Your task to perform on an android device: turn notification dots on Image 0: 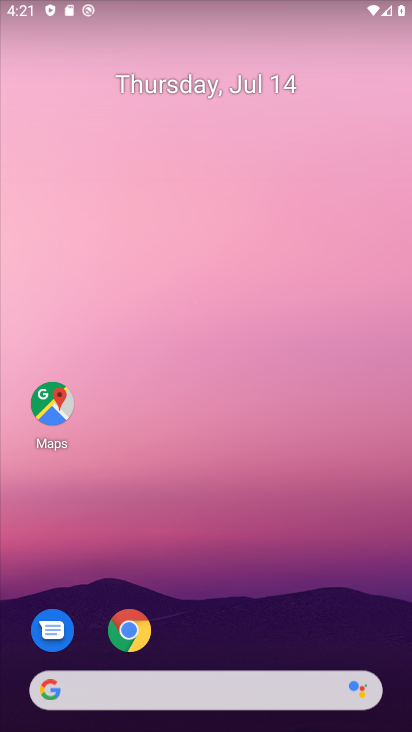
Step 0: drag from (248, 246) to (208, 238)
Your task to perform on an android device: turn notification dots on Image 1: 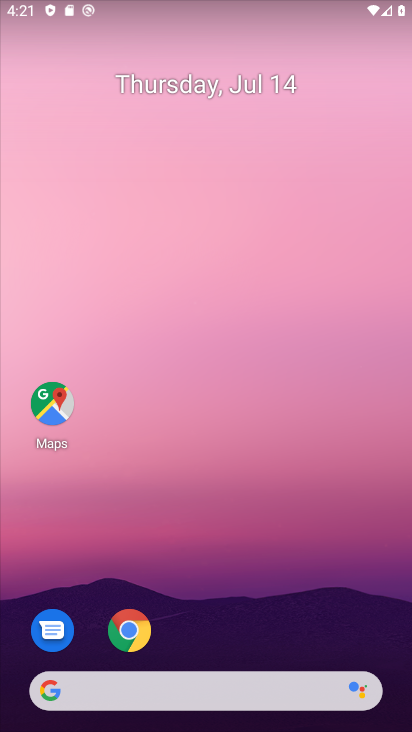
Step 1: drag from (283, 611) to (276, 298)
Your task to perform on an android device: turn notification dots on Image 2: 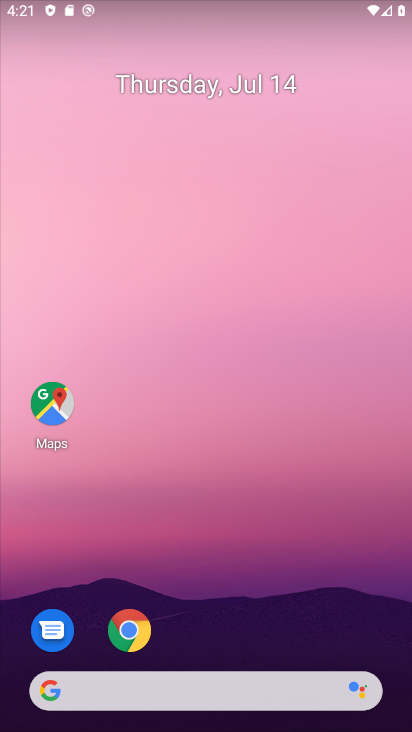
Step 2: drag from (247, 534) to (233, 51)
Your task to perform on an android device: turn notification dots on Image 3: 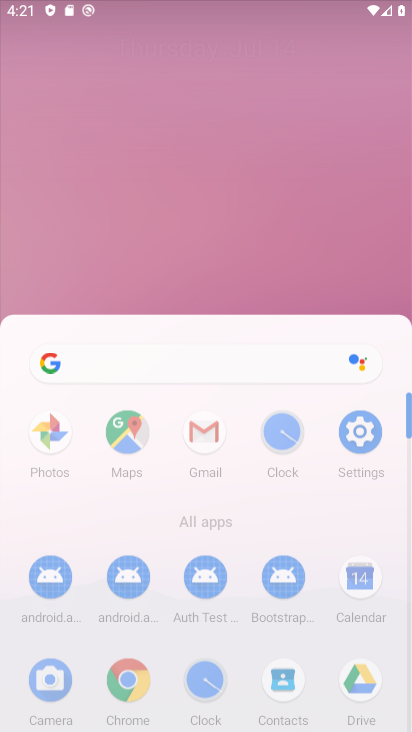
Step 3: drag from (281, 636) to (175, 105)
Your task to perform on an android device: turn notification dots on Image 4: 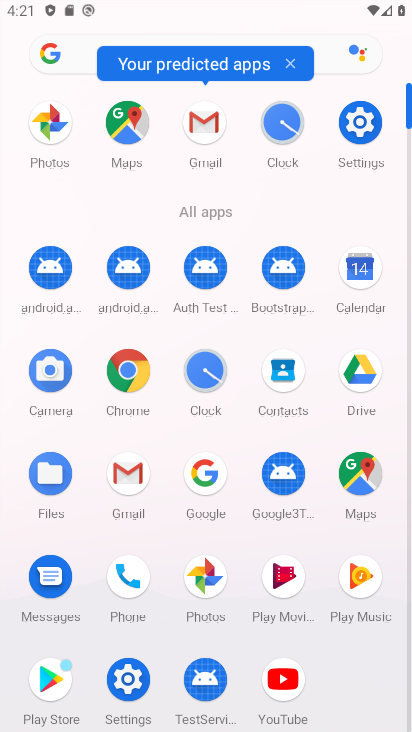
Step 4: click (343, 127)
Your task to perform on an android device: turn notification dots on Image 5: 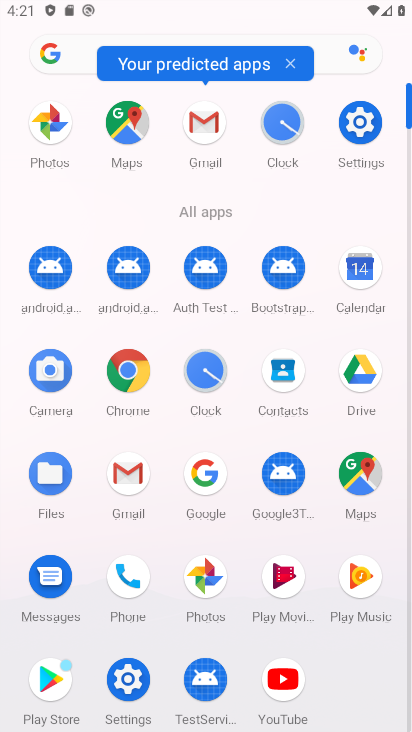
Step 5: click (381, 140)
Your task to perform on an android device: turn notification dots on Image 6: 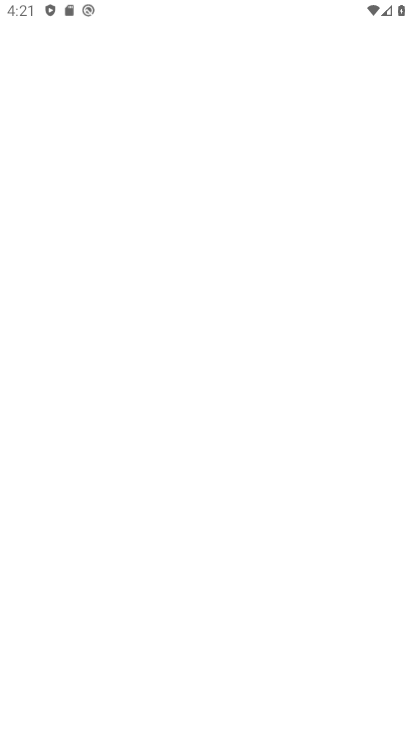
Step 6: click (365, 132)
Your task to perform on an android device: turn notification dots on Image 7: 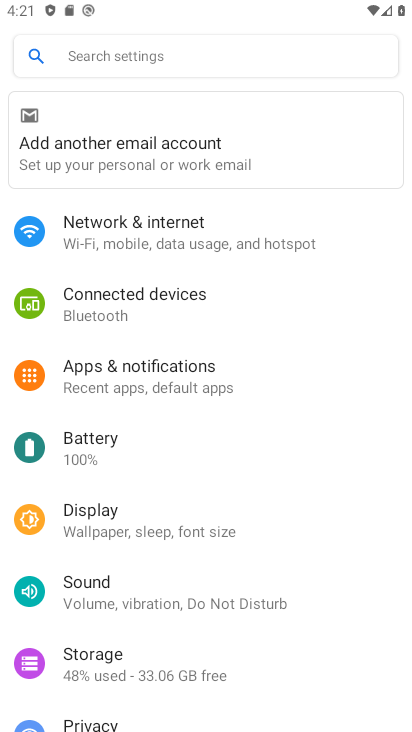
Step 7: click (139, 380)
Your task to perform on an android device: turn notification dots on Image 8: 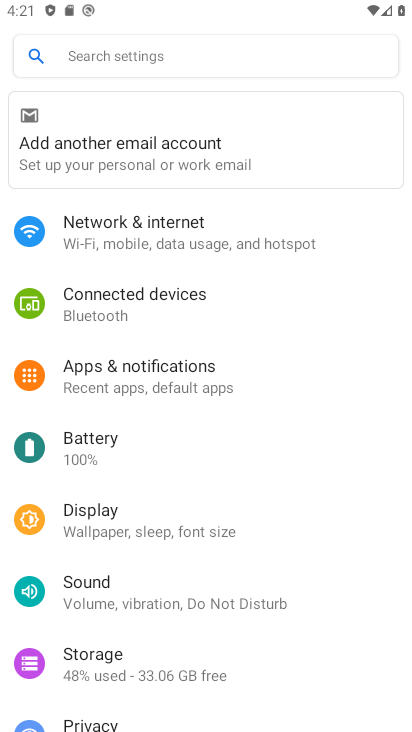
Step 8: click (140, 382)
Your task to perform on an android device: turn notification dots on Image 9: 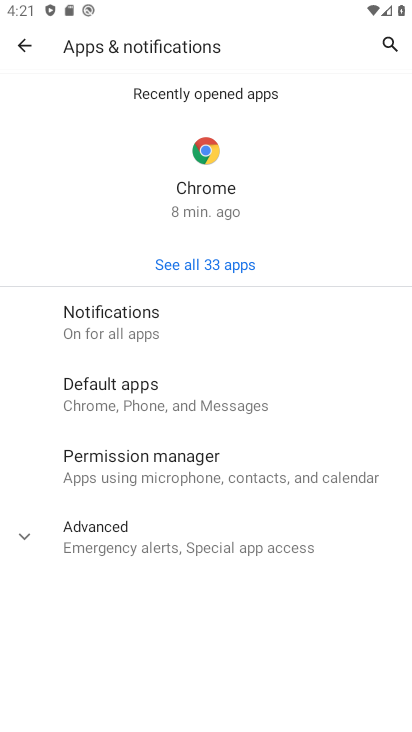
Step 9: click (110, 314)
Your task to perform on an android device: turn notification dots on Image 10: 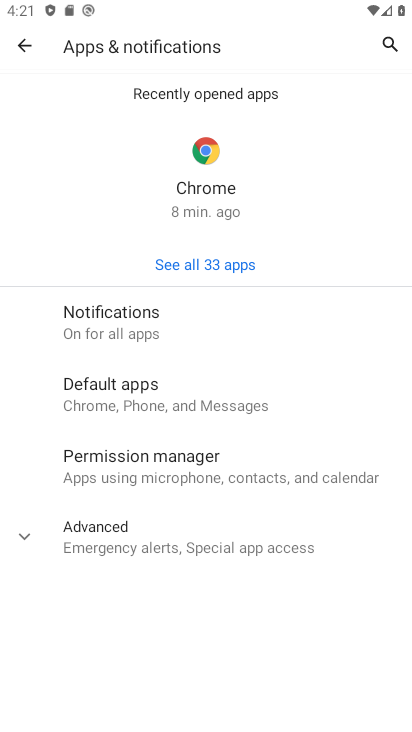
Step 10: click (110, 316)
Your task to perform on an android device: turn notification dots on Image 11: 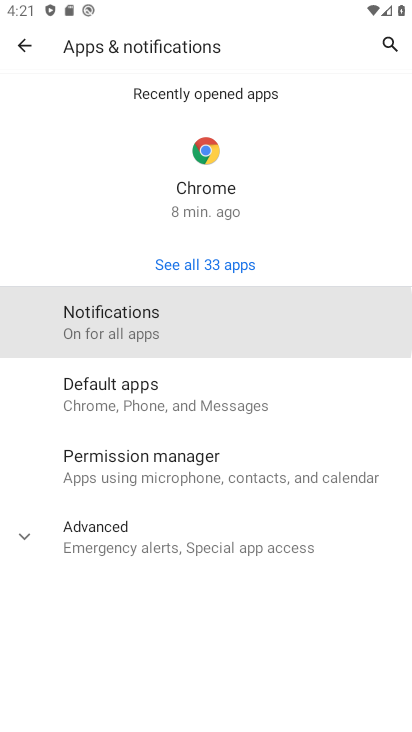
Step 11: click (110, 316)
Your task to perform on an android device: turn notification dots on Image 12: 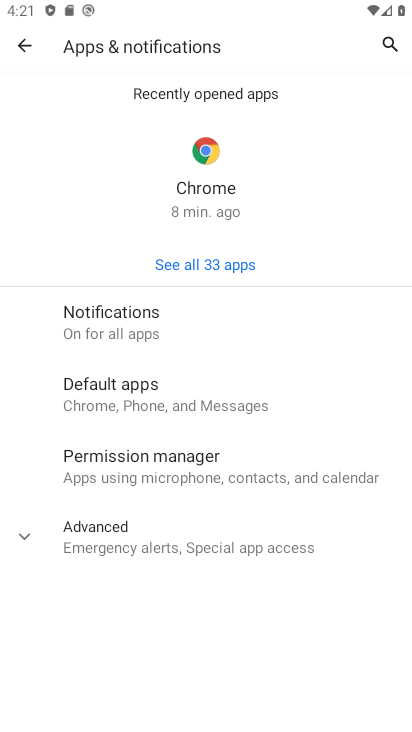
Step 12: click (111, 317)
Your task to perform on an android device: turn notification dots on Image 13: 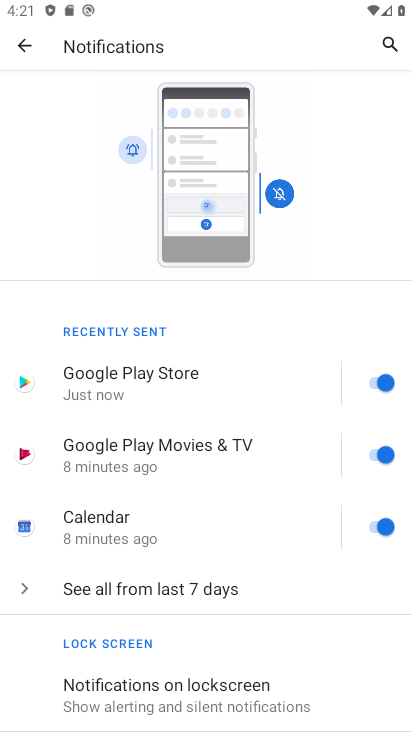
Step 13: drag from (150, 537) to (157, 261)
Your task to perform on an android device: turn notification dots on Image 14: 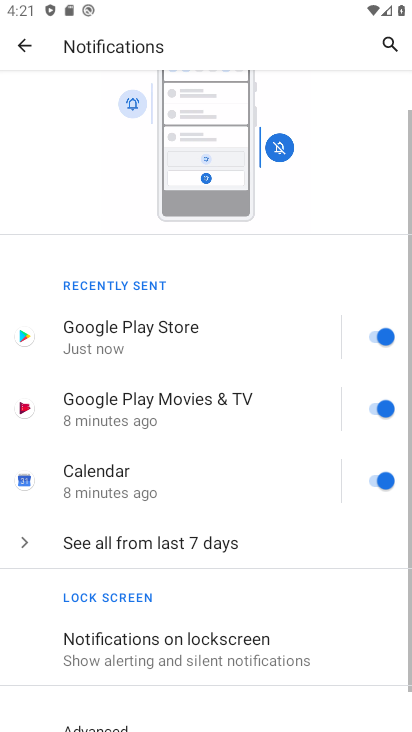
Step 14: drag from (165, 458) to (174, 92)
Your task to perform on an android device: turn notification dots on Image 15: 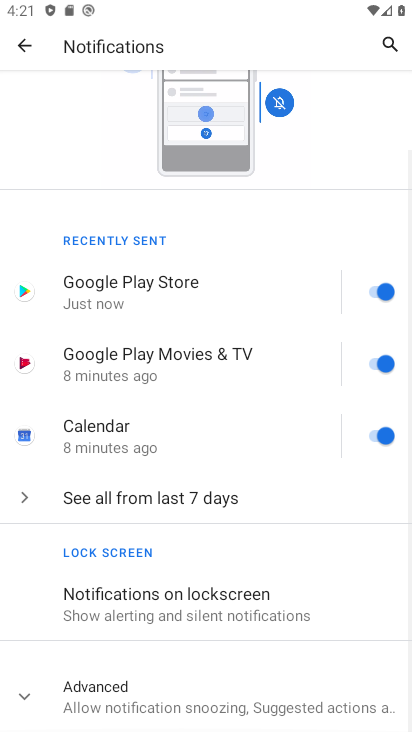
Step 15: drag from (173, 195) to (156, 254)
Your task to perform on an android device: turn notification dots on Image 16: 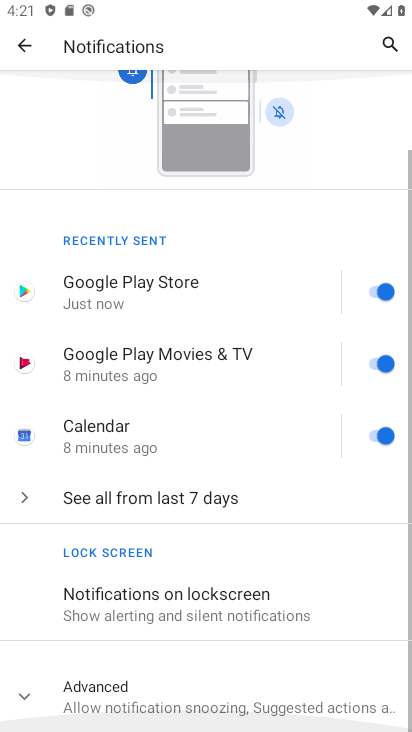
Step 16: drag from (142, 572) to (173, 356)
Your task to perform on an android device: turn notification dots on Image 17: 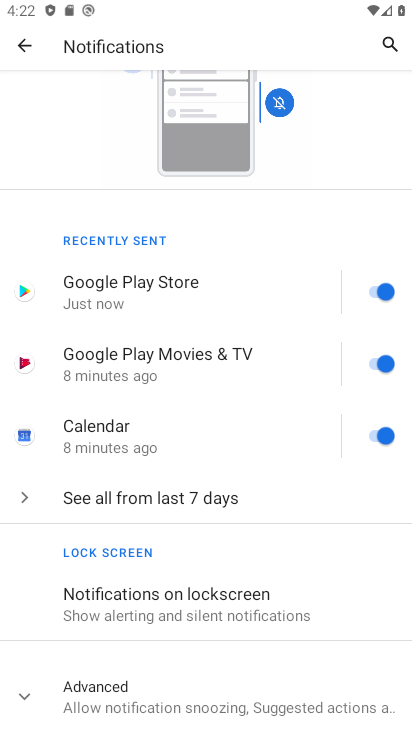
Step 17: click (106, 686)
Your task to perform on an android device: turn notification dots on Image 18: 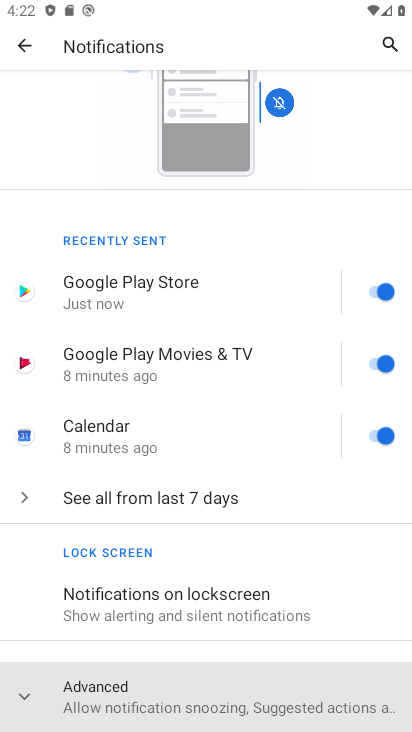
Step 18: click (106, 687)
Your task to perform on an android device: turn notification dots on Image 19: 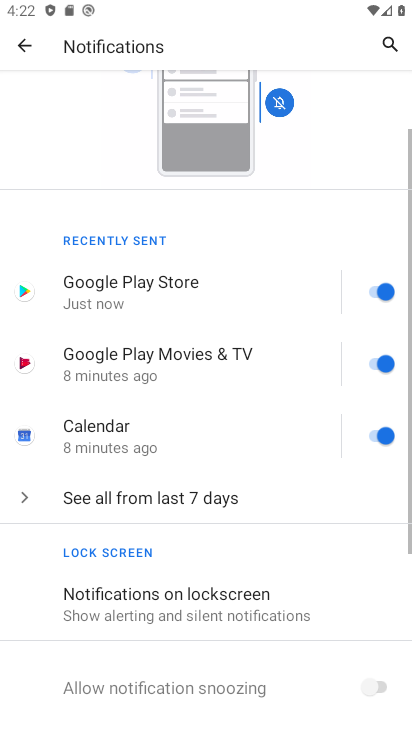
Step 19: click (118, 687)
Your task to perform on an android device: turn notification dots on Image 20: 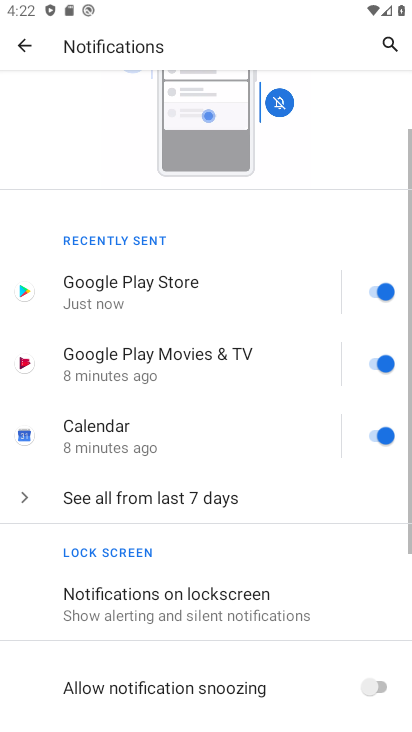
Step 20: drag from (260, 581) to (198, 325)
Your task to perform on an android device: turn notification dots on Image 21: 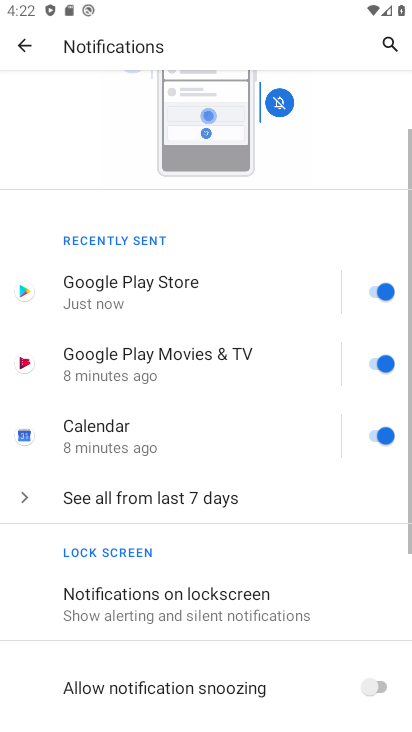
Step 21: click (244, 311)
Your task to perform on an android device: turn notification dots on Image 22: 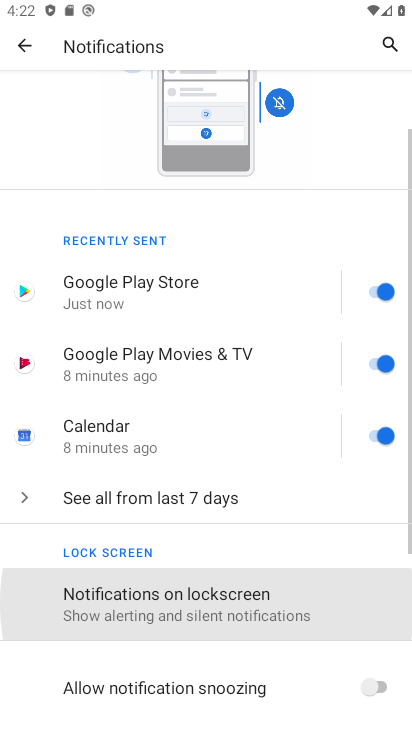
Step 22: drag from (257, 432) to (231, 307)
Your task to perform on an android device: turn notification dots on Image 23: 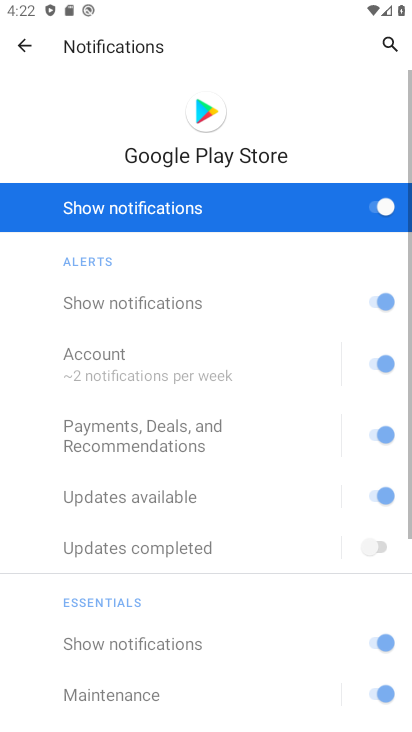
Step 23: drag from (115, 660) to (99, 353)
Your task to perform on an android device: turn notification dots on Image 24: 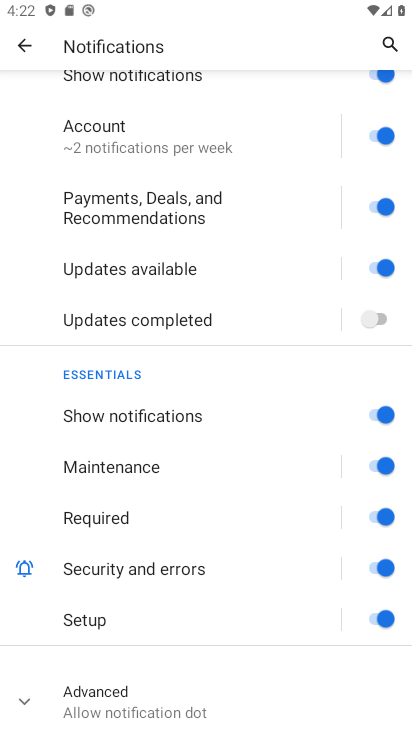
Step 24: click (29, 45)
Your task to perform on an android device: turn notification dots on Image 25: 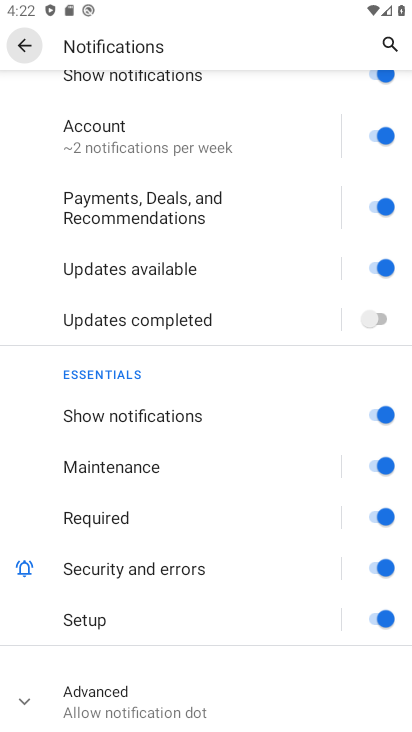
Step 25: click (29, 44)
Your task to perform on an android device: turn notification dots on Image 26: 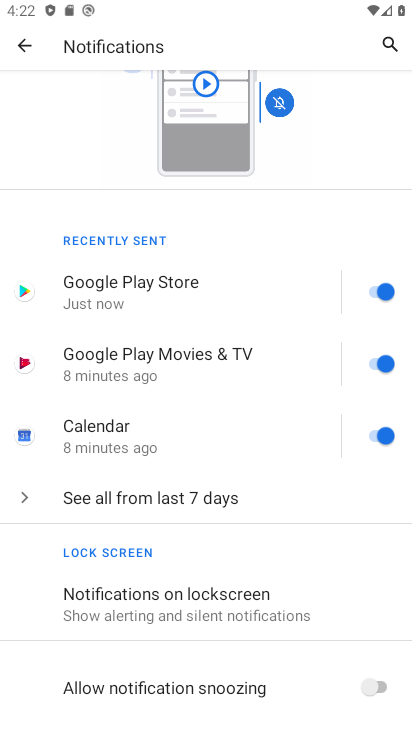
Step 26: task complete